Your task to perform on an android device: Search for vegetarian restaurants on Maps Image 0: 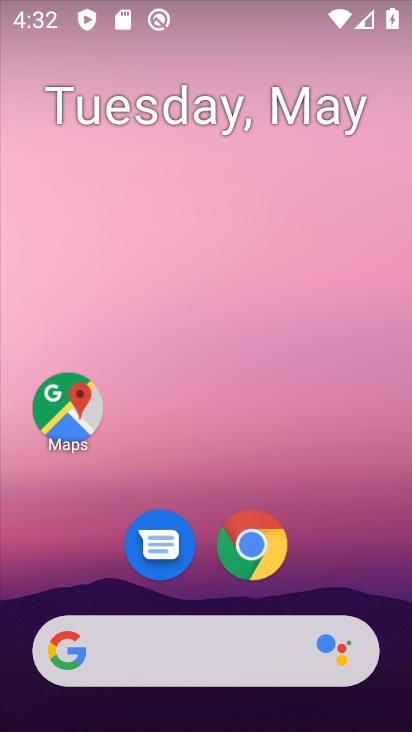
Step 0: drag from (306, 400) to (249, 21)
Your task to perform on an android device: Search for vegetarian restaurants on Maps Image 1: 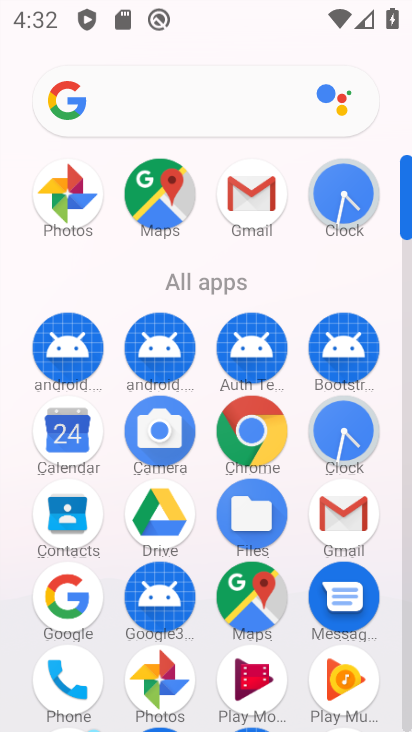
Step 1: drag from (23, 580) to (16, 288)
Your task to perform on an android device: Search for vegetarian restaurants on Maps Image 2: 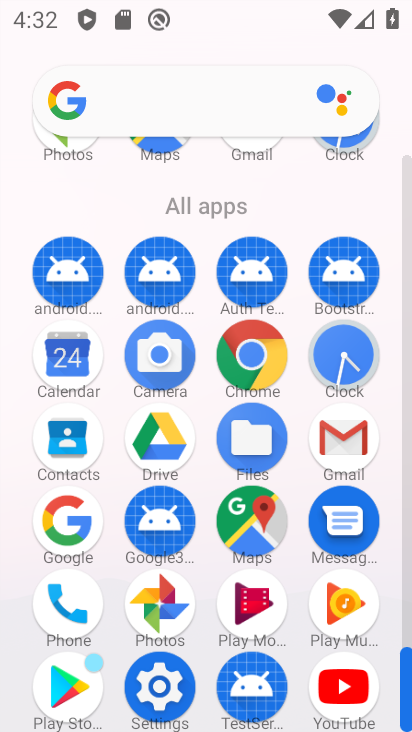
Step 2: click (246, 519)
Your task to perform on an android device: Search for vegetarian restaurants on Maps Image 3: 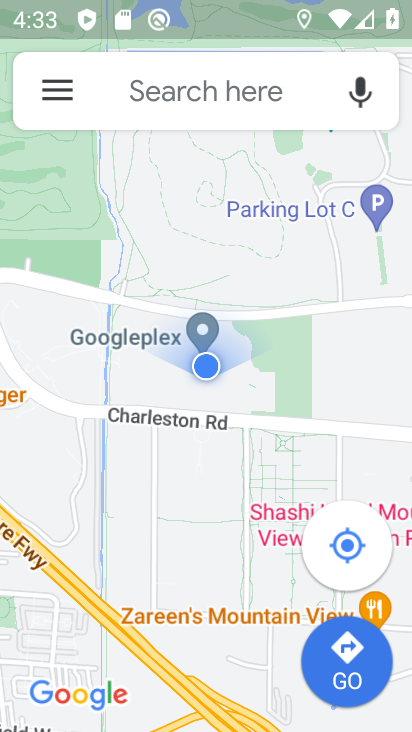
Step 3: click (110, 87)
Your task to perform on an android device: Search for vegetarian restaurants on Maps Image 4: 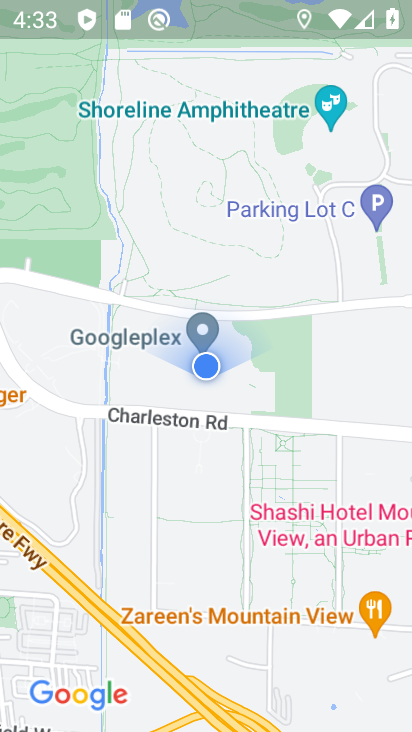
Step 4: click (213, 95)
Your task to perform on an android device: Search for vegetarian restaurants on Maps Image 5: 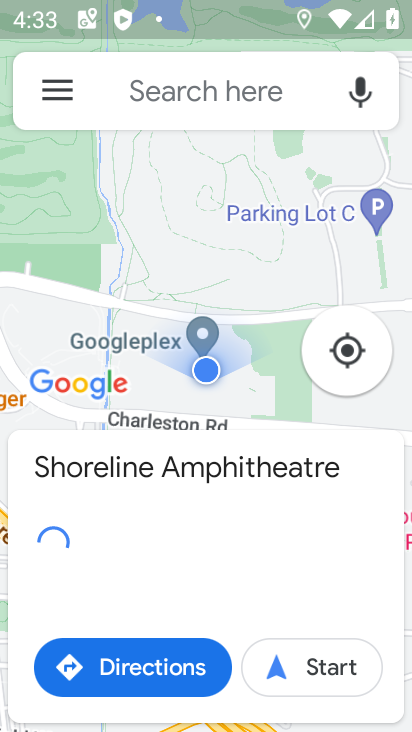
Step 5: click (199, 94)
Your task to perform on an android device: Search for vegetarian restaurants on Maps Image 6: 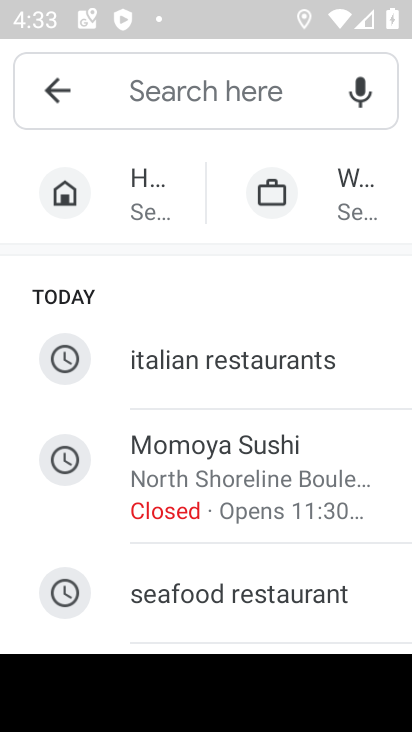
Step 6: type "vegetarian restaurants"
Your task to perform on an android device: Search for vegetarian restaurants on Maps Image 7: 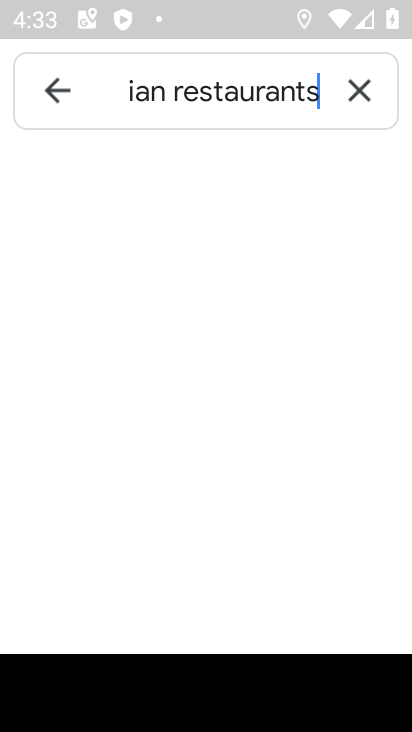
Step 7: type ""
Your task to perform on an android device: Search for vegetarian restaurants on Maps Image 8: 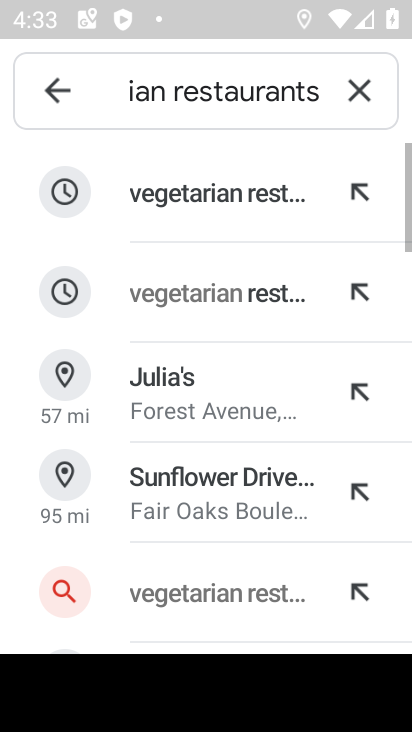
Step 8: click (207, 192)
Your task to perform on an android device: Search for vegetarian restaurants on Maps Image 9: 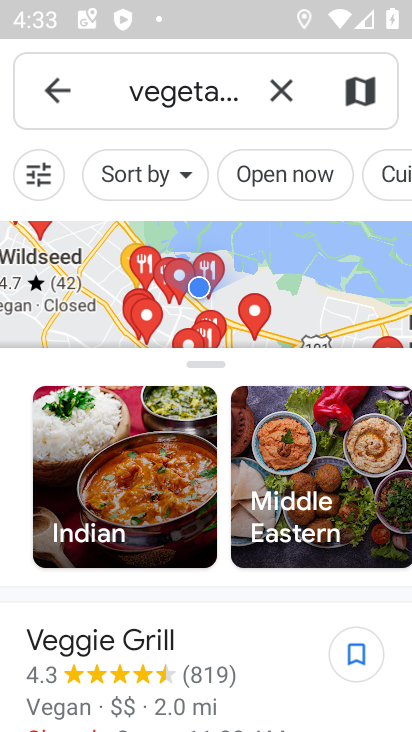
Step 9: task complete